Your task to perform on an android device: Is it going to rain this weekend? Image 0: 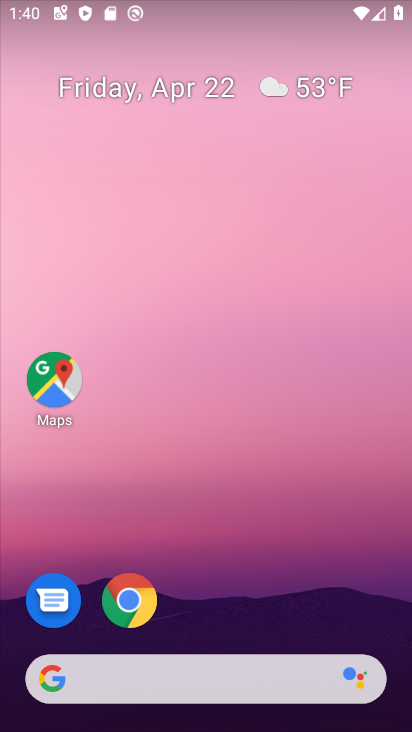
Step 0: click (272, 83)
Your task to perform on an android device: Is it going to rain this weekend? Image 1: 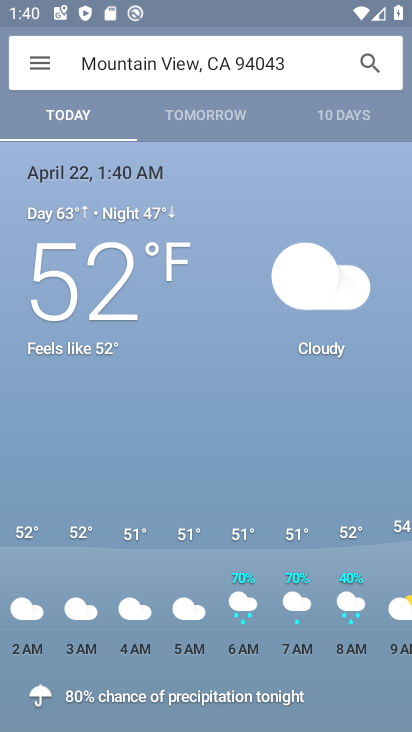
Step 1: click (329, 115)
Your task to perform on an android device: Is it going to rain this weekend? Image 2: 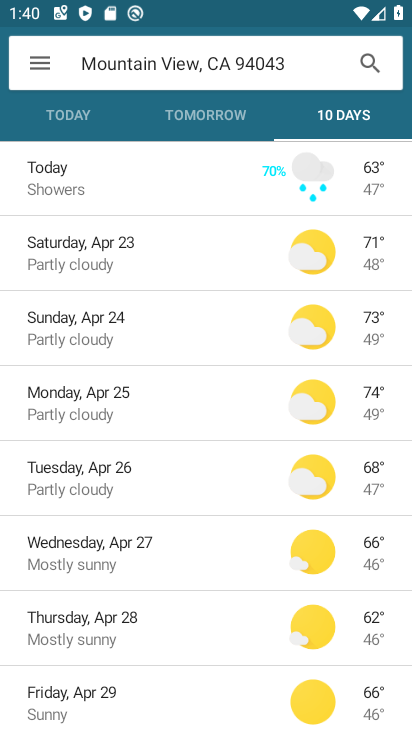
Step 2: click (73, 249)
Your task to perform on an android device: Is it going to rain this weekend? Image 3: 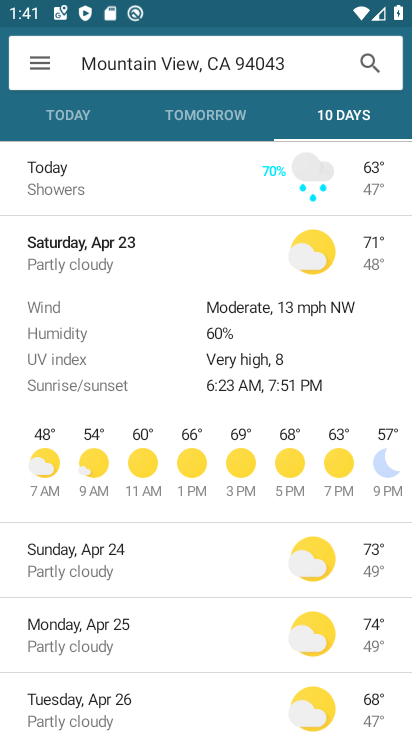
Step 3: task complete